Your task to perform on an android device: turn on translation in the chrome app Image 0: 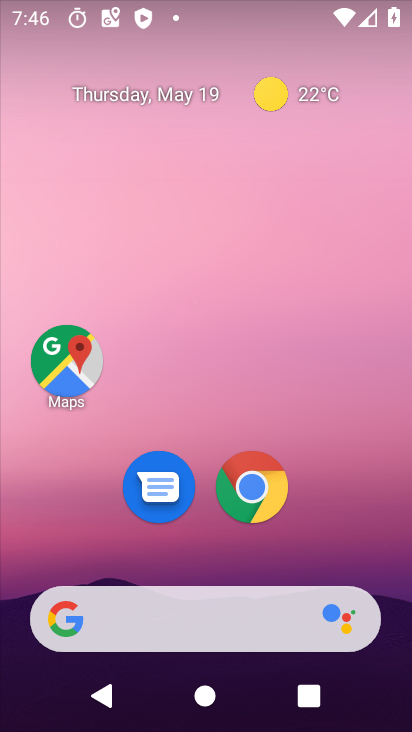
Step 0: press home button
Your task to perform on an android device: turn on translation in the chrome app Image 1: 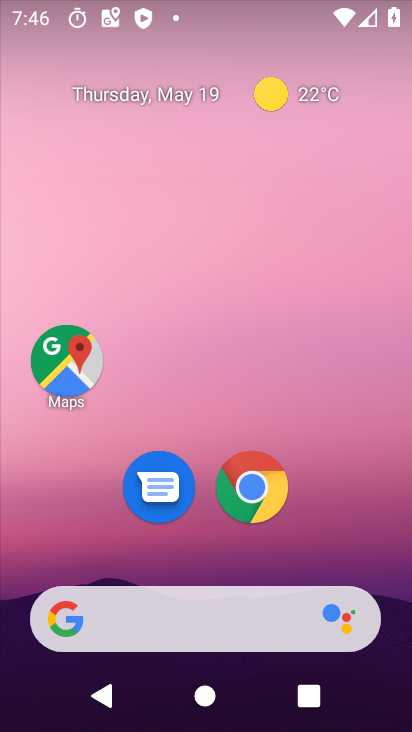
Step 1: click (259, 497)
Your task to perform on an android device: turn on translation in the chrome app Image 2: 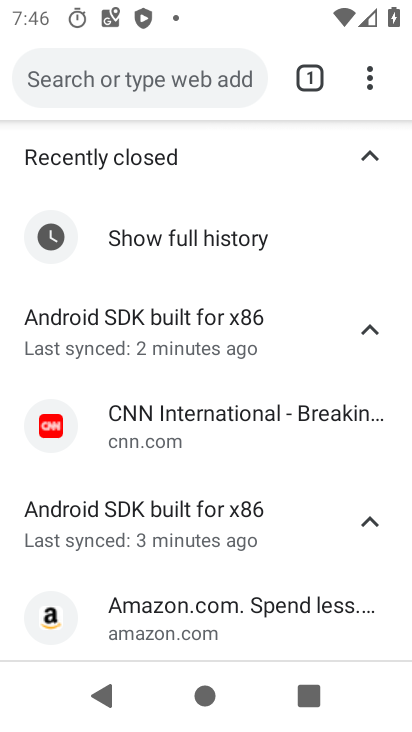
Step 2: drag from (370, 84) to (237, 556)
Your task to perform on an android device: turn on translation in the chrome app Image 3: 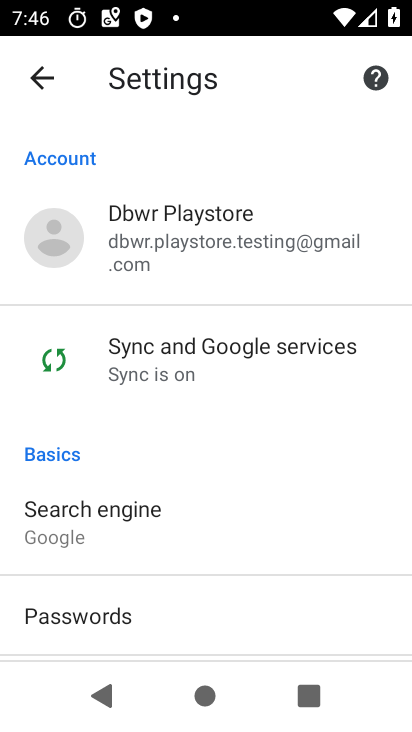
Step 3: drag from (198, 609) to (320, 166)
Your task to perform on an android device: turn on translation in the chrome app Image 4: 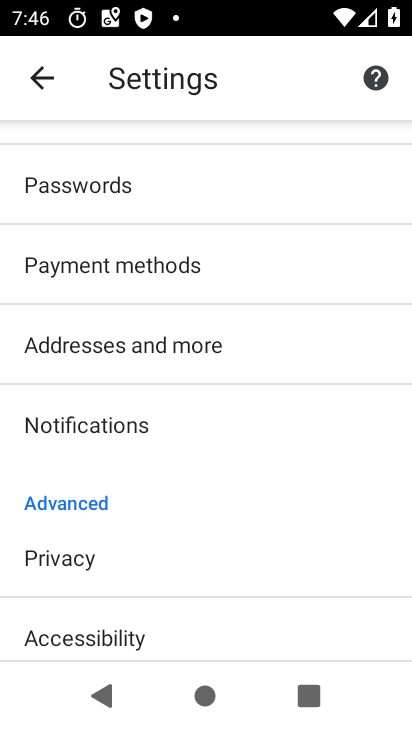
Step 4: drag from (195, 567) to (286, 164)
Your task to perform on an android device: turn on translation in the chrome app Image 5: 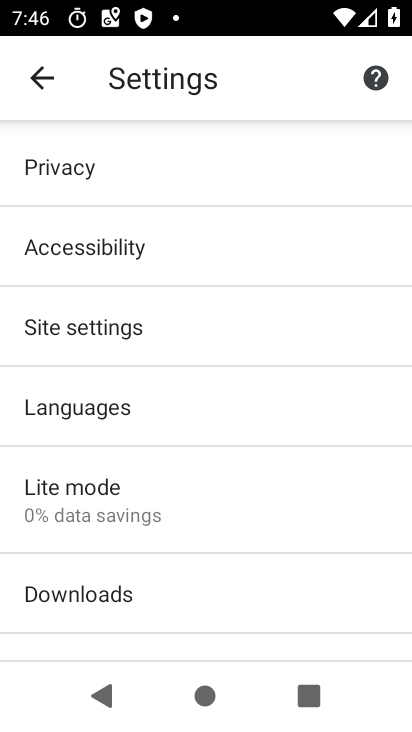
Step 5: click (111, 410)
Your task to perform on an android device: turn on translation in the chrome app Image 6: 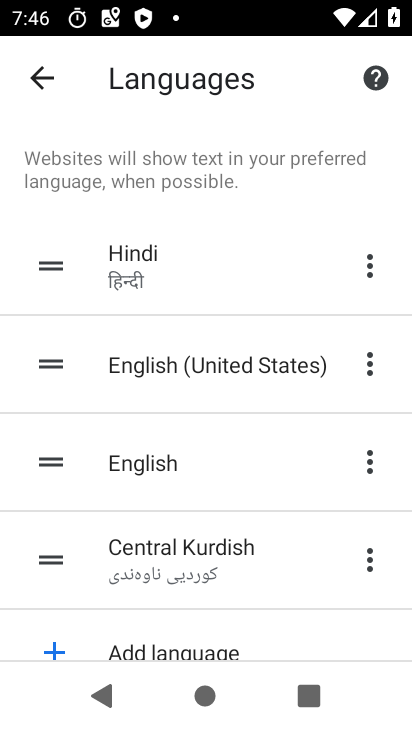
Step 6: drag from (268, 608) to (350, 91)
Your task to perform on an android device: turn on translation in the chrome app Image 7: 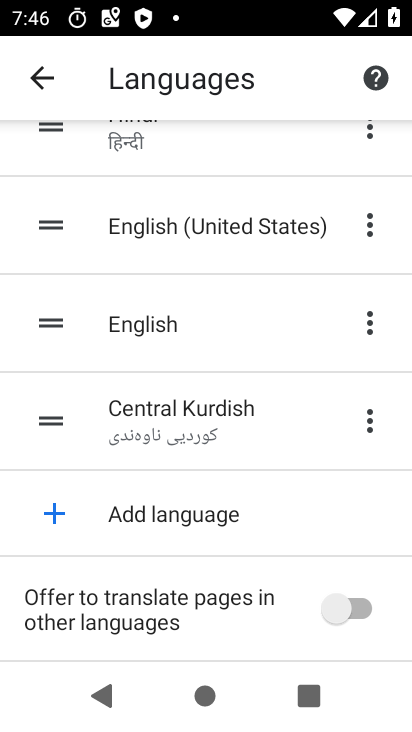
Step 7: click (356, 620)
Your task to perform on an android device: turn on translation in the chrome app Image 8: 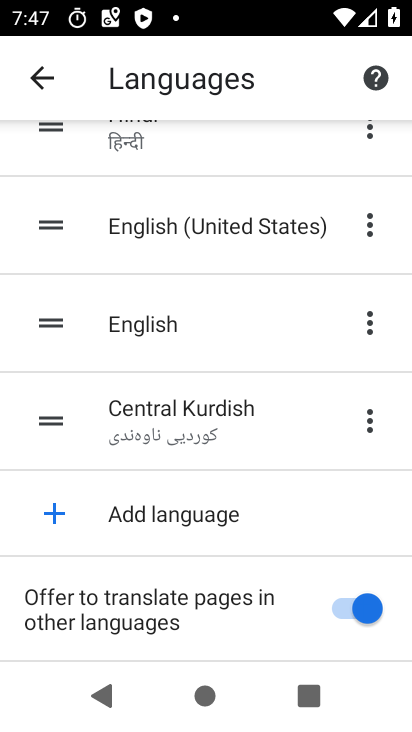
Step 8: task complete